Your task to perform on an android device: remove spam from my inbox in the gmail app Image 0: 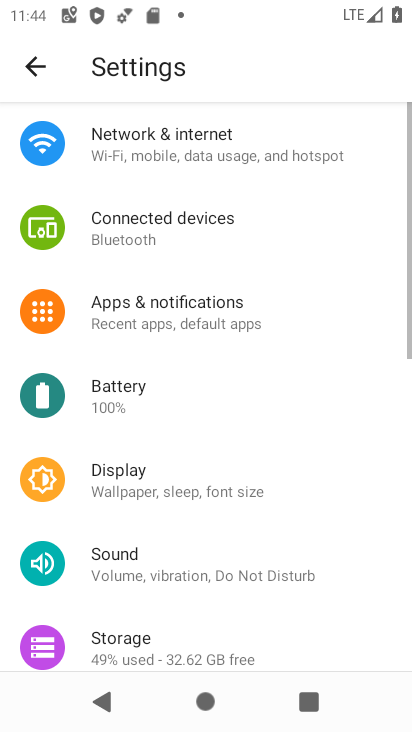
Step 0: press home button
Your task to perform on an android device: remove spam from my inbox in the gmail app Image 1: 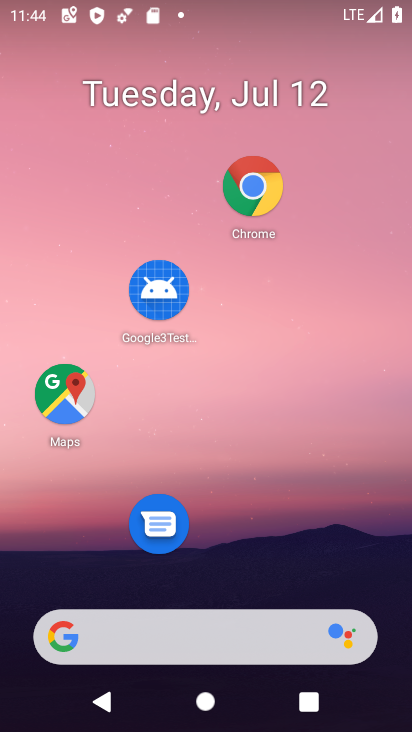
Step 1: drag from (247, 576) to (112, 148)
Your task to perform on an android device: remove spam from my inbox in the gmail app Image 2: 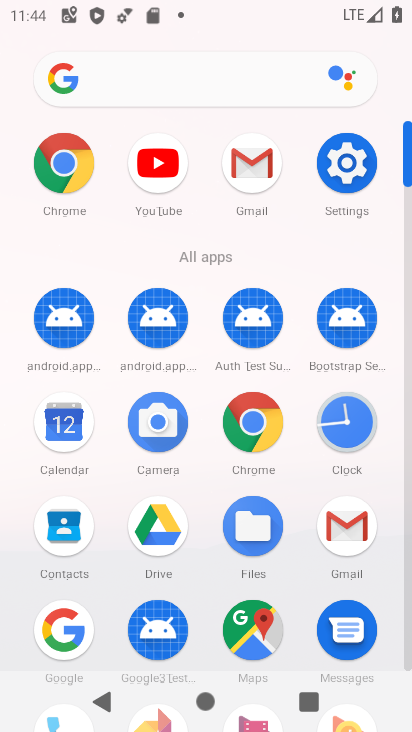
Step 2: click (250, 177)
Your task to perform on an android device: remove spam from my inbox in the gmail app Image 3: 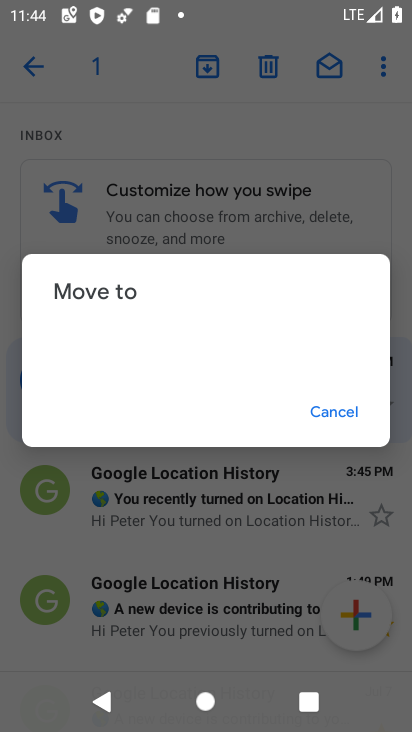
Step 3: click (340, 420)
Your task to perform on an android device: remove spam from my inbox in the gmail app Image 4: 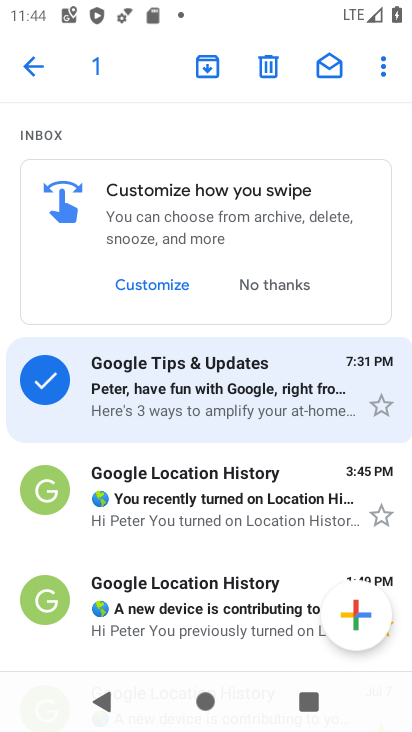
Step 4: click (27, 69)
Your task to perform on an android device: remove spam from my inbox in the gmail app Image 5: 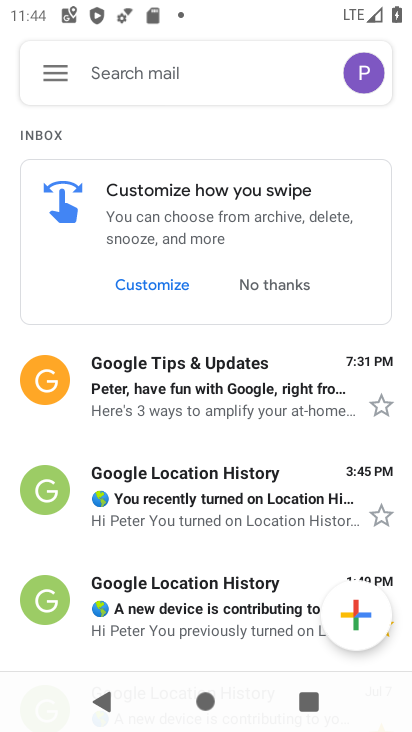
Step 5: click (48, 63)
Your task to perform on an android device: remove spam from my inbox in the gmail app Image 6: 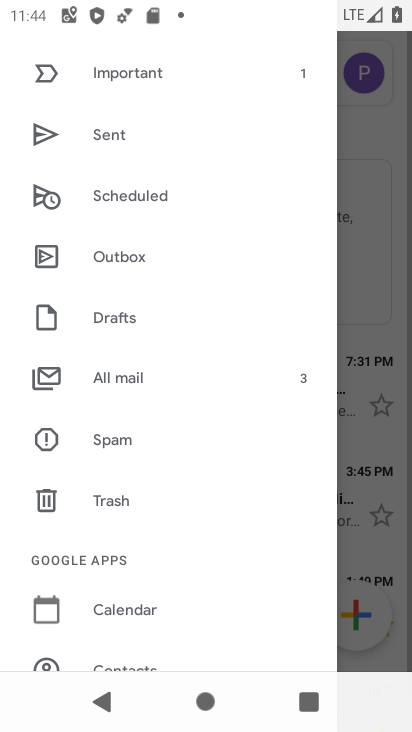
Step 6: click (105, 432)
Your task to perform on an android device: remove spam from my inbox in the gmail app Image 7: 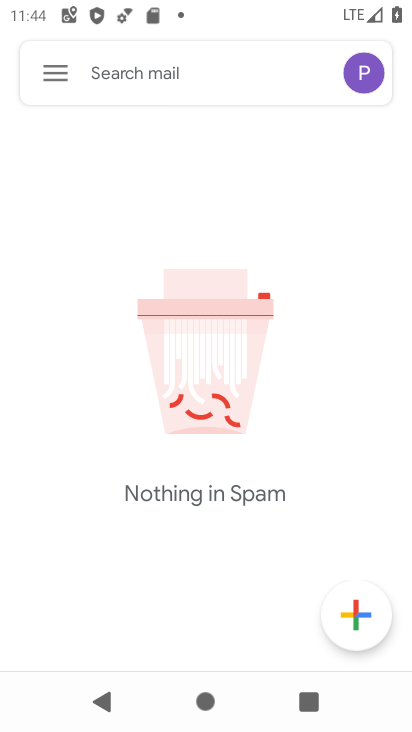
Step 7: task complete